Your task to perform on an android device: Is it going to rain this weekend? Image 0: 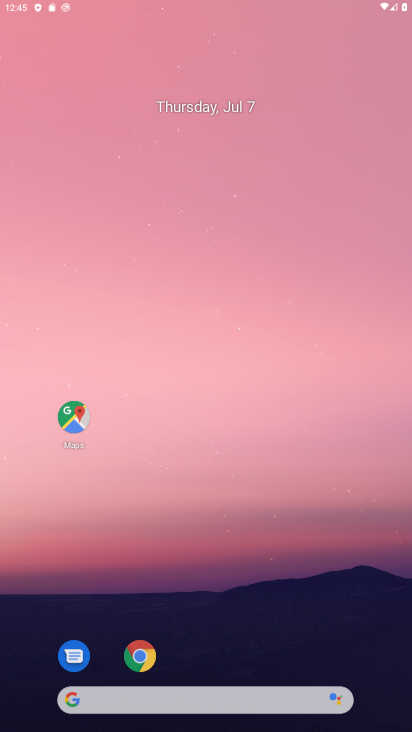
Step 0: click (315, 62)
Your task to perform on an android device: Is it going to rain this weekend? Image 1: 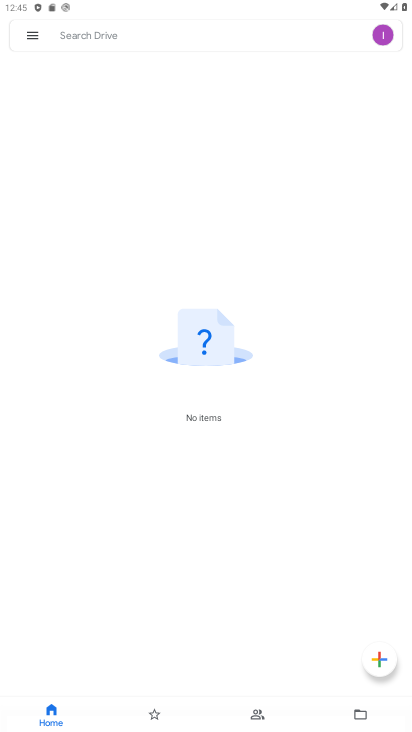
Step 1: press home button
Your task to perform on an android device: Is it going to rain this weekend? Image 2: 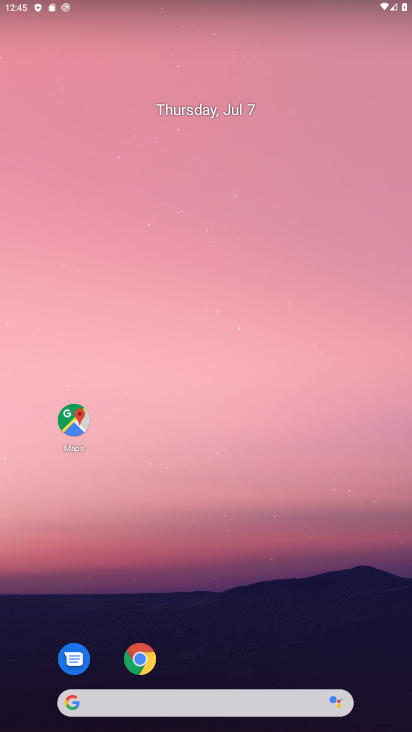
Step 2: click (147, 689)
Your task to perform on an android device: Is it going to rain this weekend? Image 3: 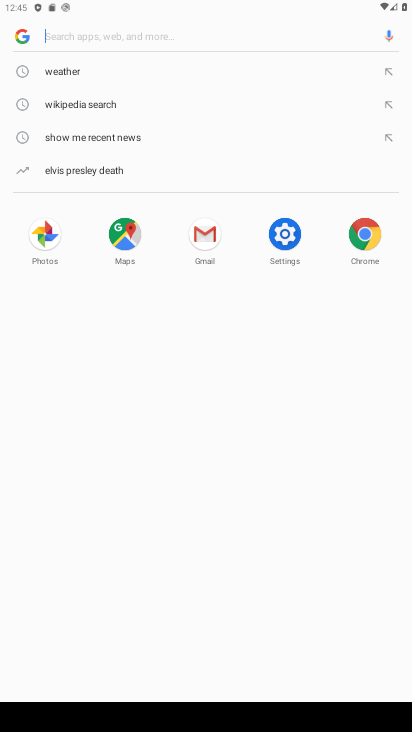
Step 3: type "Is it going to rain this weekend?"
Your task to perform on an android device: Is it going to rain this weekend? Image 4: 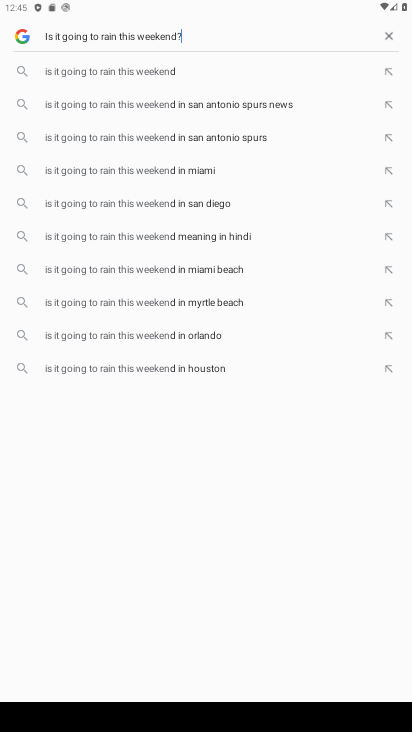
Step 4: type ""
Your task to perform on an android device: Is it going to rain this weekend? Image 5: 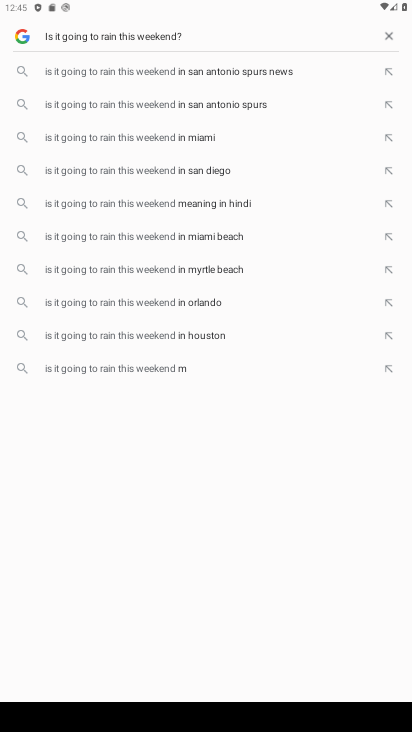
Step 5: click (203, 37)
Your task to perform on an android device: Is it going to rain this weekend? Image 6: 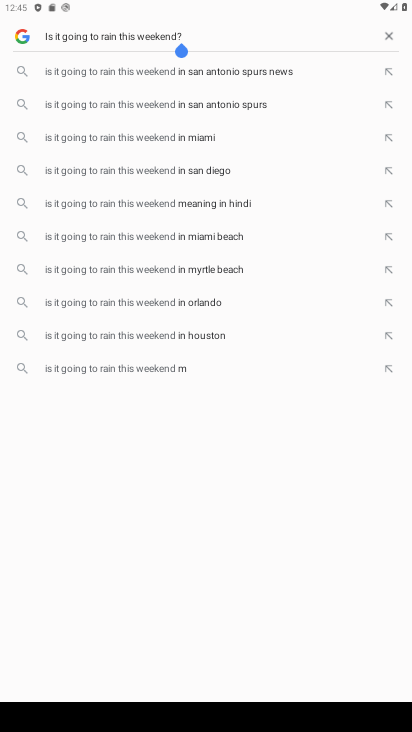
Step 6: press enter
Your task to perform on an android device: Is it going to rain this weekend? Image 7: 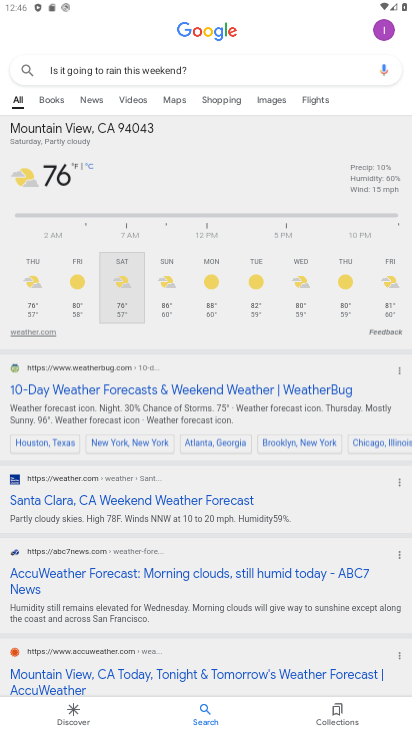
Step 7: click (156, 390)
Your task to perform on an android device: Is it going to rain this weekend? Image 8: 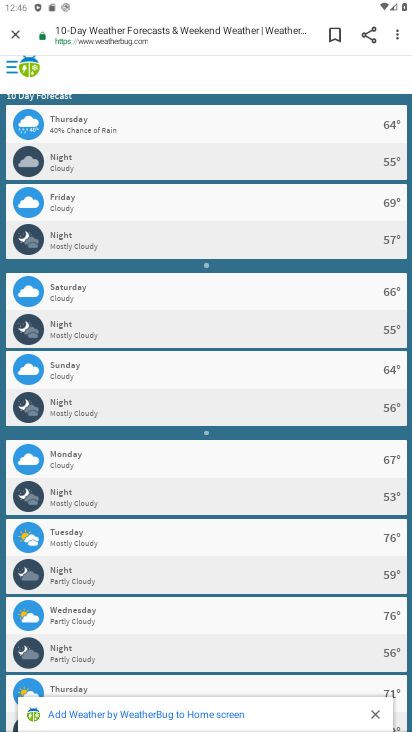
Step 8: task complete